Your task to perform on an android device: toggle sleep mode Image 0: 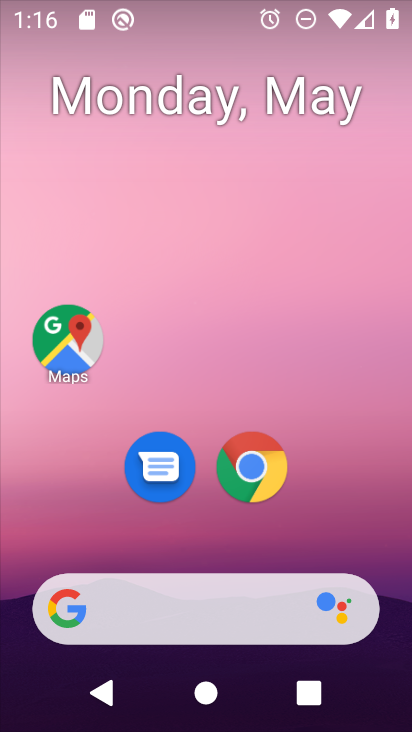
Step 0: drag from (400, 552) to (401, 20)
Your task to perform on an android device: toggle sleep mode Image 1: 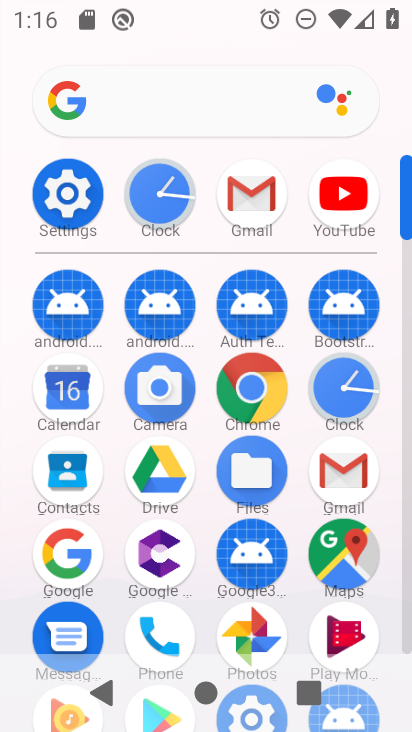
Step 1: click (68, 204)
Your task to perform on an android device: toggle sleep mode Image 2: 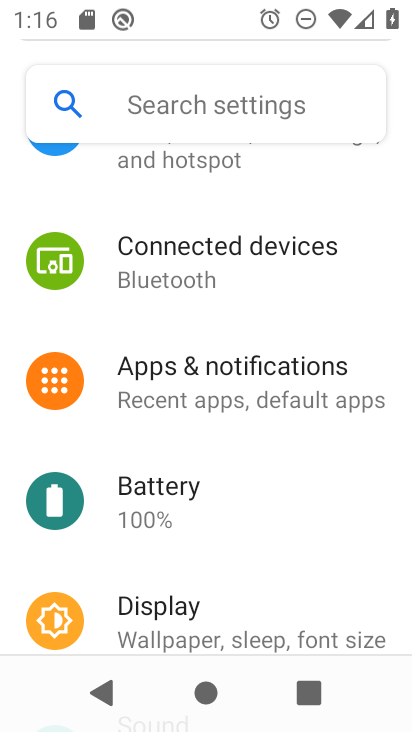
Step 2: click (163, 614)
Your task to perform on an android device: toggle sleep mode Image 3: 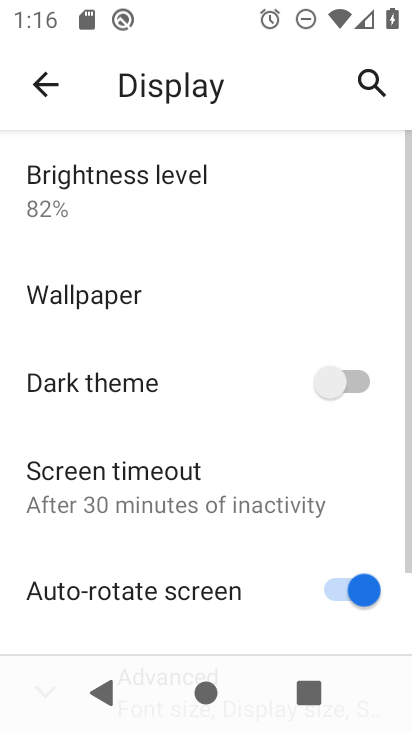
Step 3: drag from (221, 605) to (191, 98)
Your task to perform on an android device: toggle sleep mode Image 4: 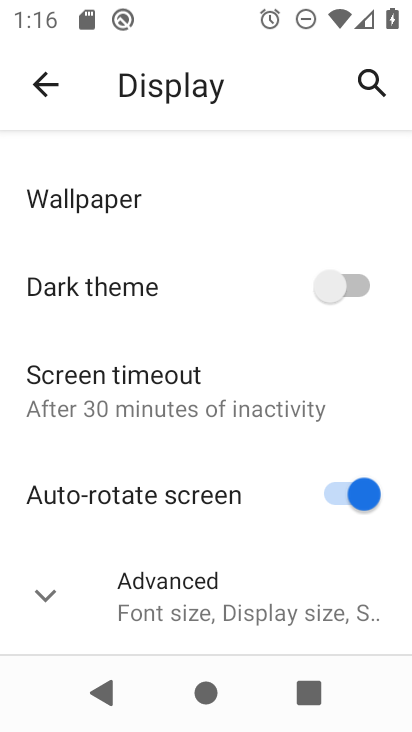
Step 4: click (43, 609)
Your task to perform on an android device: toggle sleep mode Image 5: 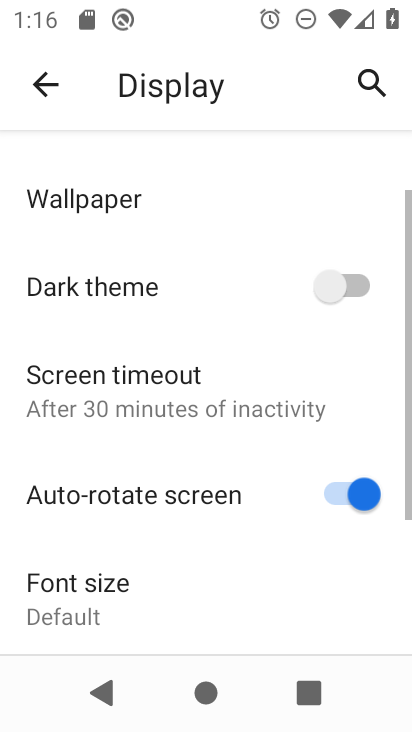
Step 5: task complete